Your task to perform on an android device: Go to Amazon Image 0: 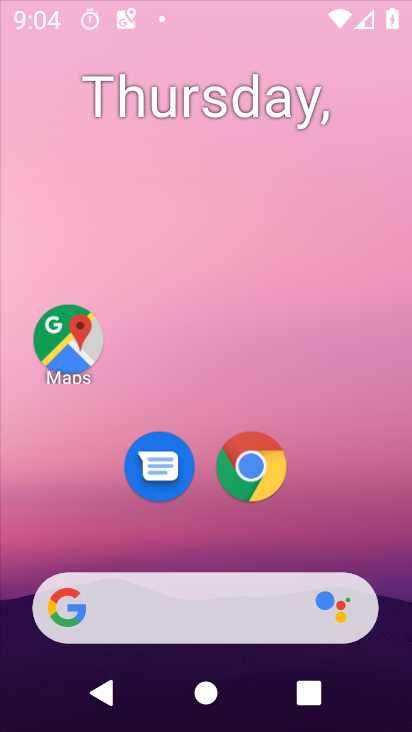
Step 0: press home button
Your task to perform on an android device: Go to Amazon Image 1: 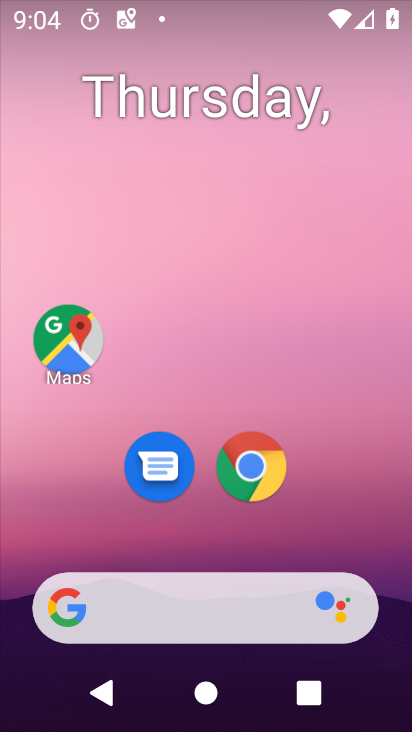
Step 1: click (52, 623)
Your task to perform on an android device: Go to Amazon Image 2: 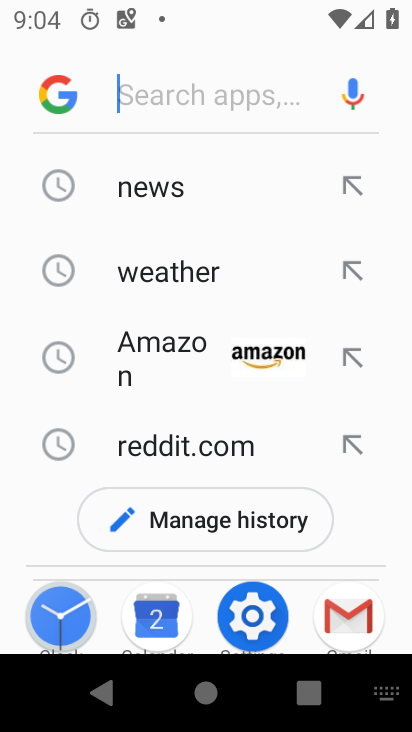
Step 2: click (164, 347)
Your task to perform on an android device: Go to Amazon Image 3: 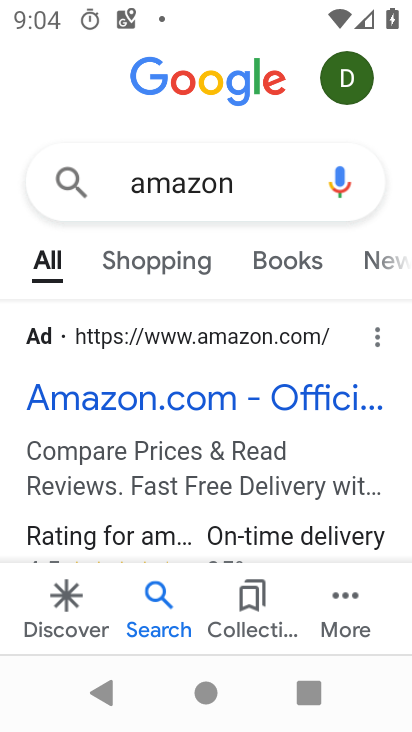
Step 3: click (183, 404)
Your task to perform on an android device: Go to Amazon Image 4: 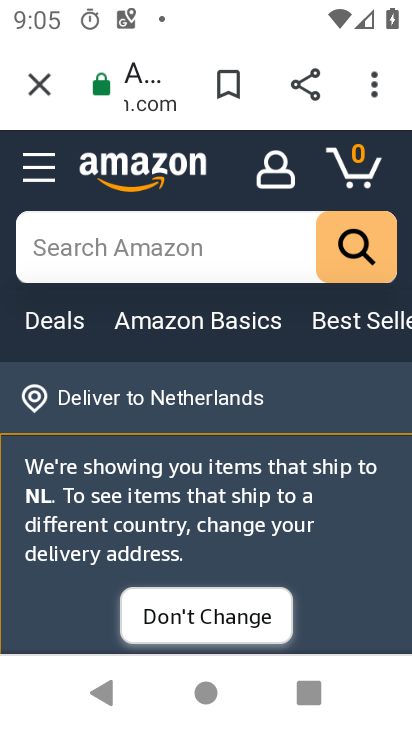
Step 4: task complete